Your task to perform on an android device: Show me recent news Image 0: 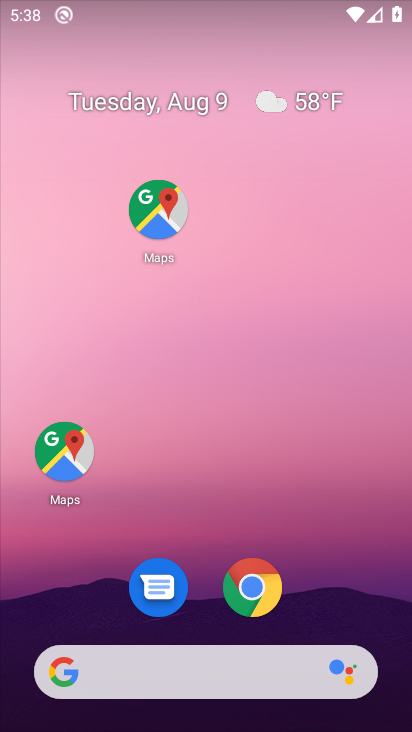
Step 0: press back button
Your task to perform on an android device: Show me recent news Image 1: 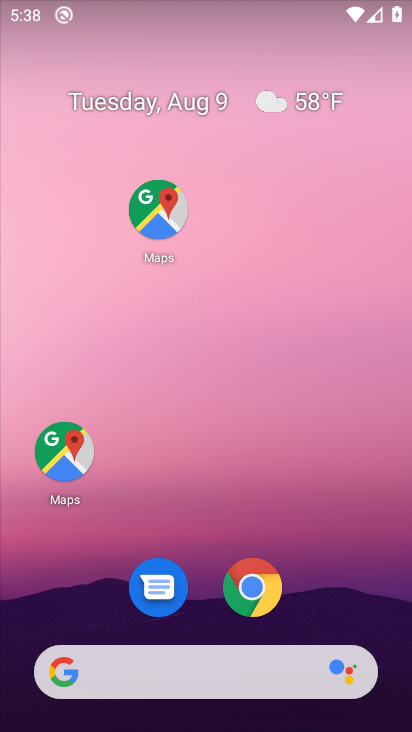
Step 1: press back button
Your task to perform on an android device: Show me recent news Image 2: 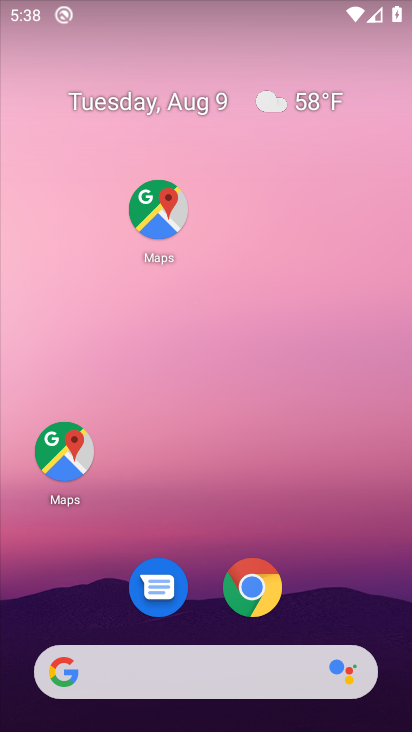
Step 2: drag from (267, 645) to (160, 0)
Your task to perform on an android device: Show me recent news Image 3: 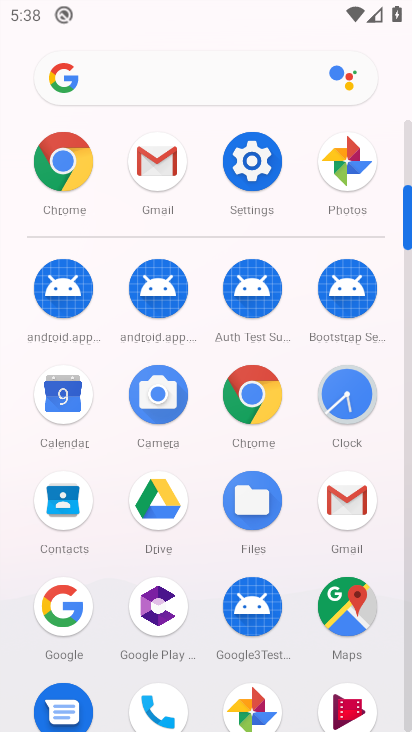
Step 3: click (255, 383)
Your task to perform on an android device: Show me recent news Image 4: 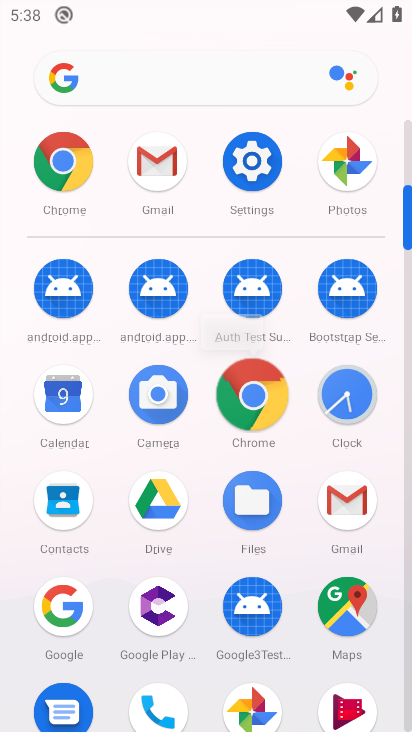
Step 4: drag from (266, 372) to (258, 416)
Your task to perform on an android device: Show me recent news Image 5: 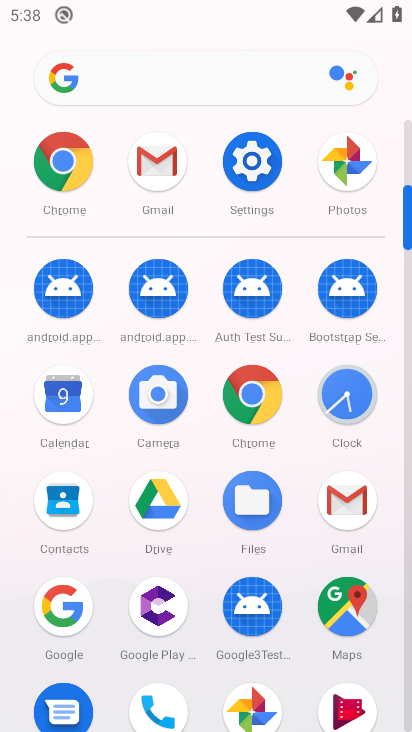
Step 5: click (260, 407)
Your task to perform on an android device: Show me recent news Image 6: 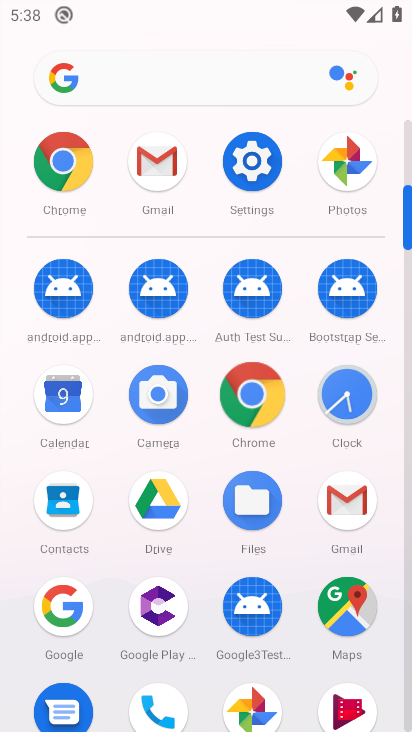
Step 6: click (256, 407)
Your task to perform on an android device: Show me recent news Image 7: 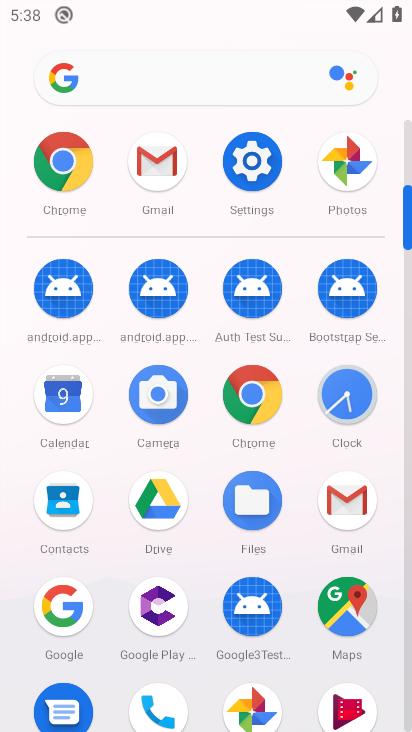
Step 7: click (267, 402)
Your task to perform on an android device: Show me recent news Image 8: 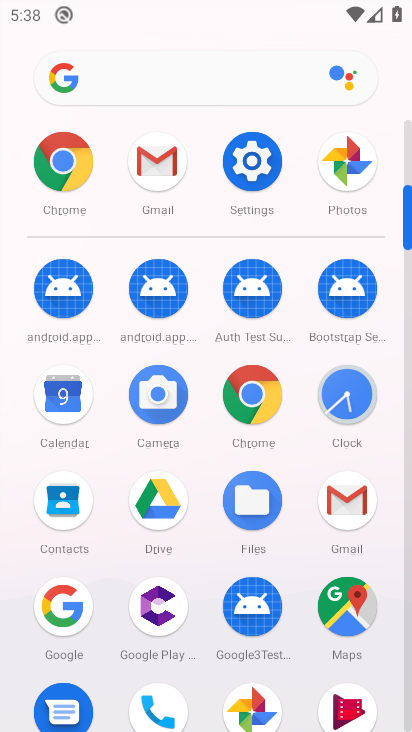
Step 8: click (266, 403)
Your task to perform on an android device: Show me recent news Image 9: 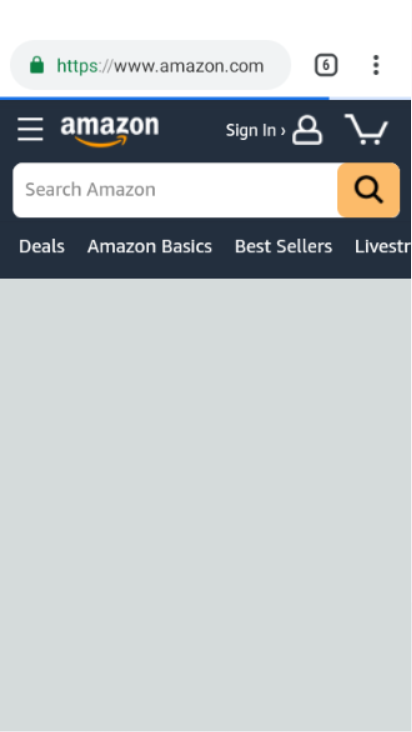
Step 9: click (265, 405)
Your task to perform on an android device: Show me recent news Image 10: 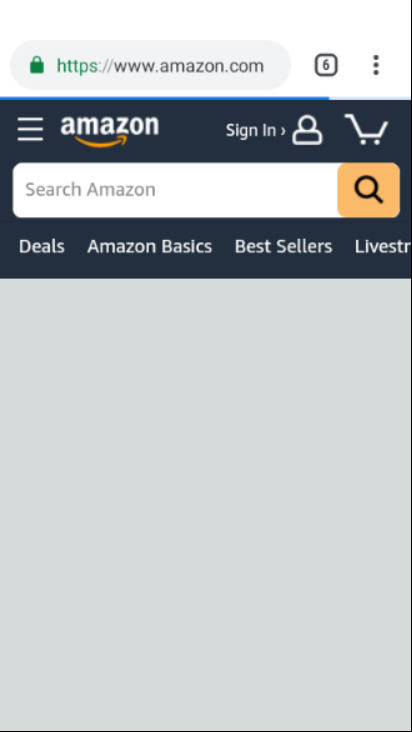
Step 10: click (256, 395)
Your task to perform on an android device: Show me recent news Image 11: 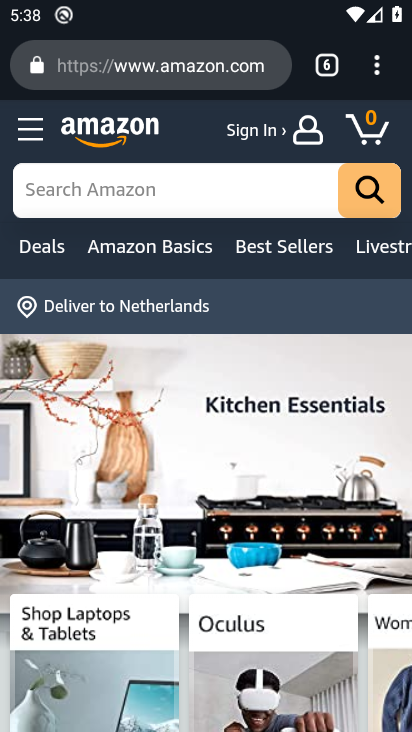
Step 11: drag from (379, 61) to (116, 117)
Your task to perform on an android device: Show me recent news Image 12: 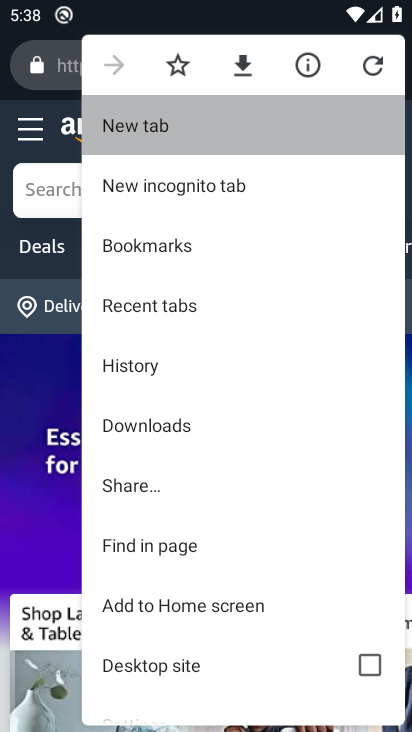
Step 12: click (116, 117)
Your task to perform on an android device: Show me recent news Image 13: 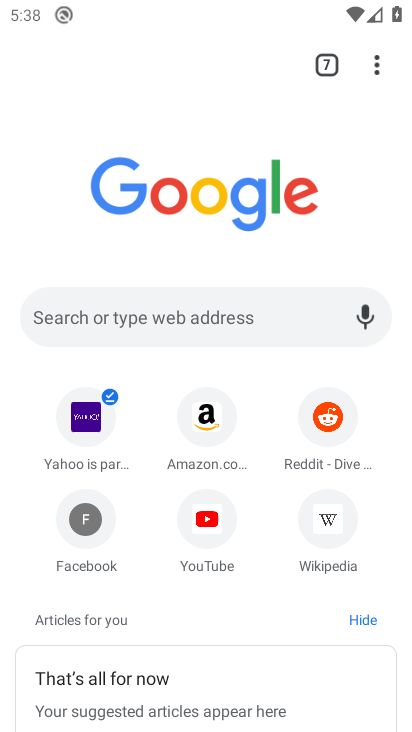
Step 13: drag from (240, 636) to (375, 452)
Your task to perform on an android device: Show me recent news Image 14: 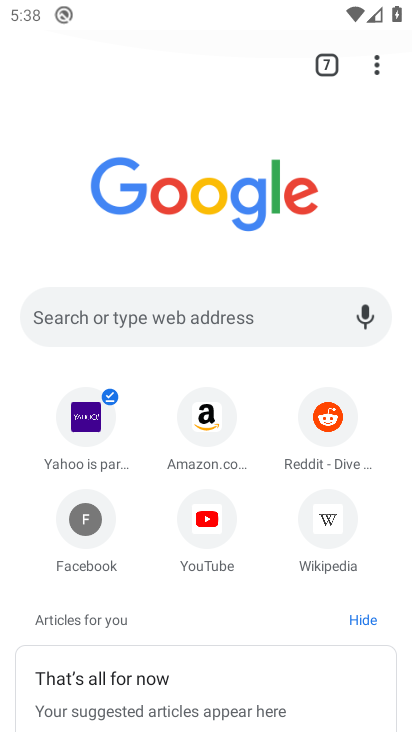
Step 14: click (220, 620)
Your task to perform on an android device: Show me recent news Image 15: 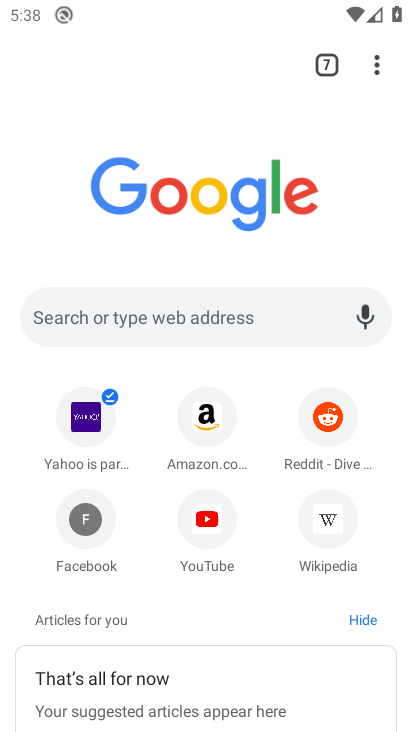
Step 15: click (220, 620)
Your task to perform on an android device: Show me recent news Image 16: 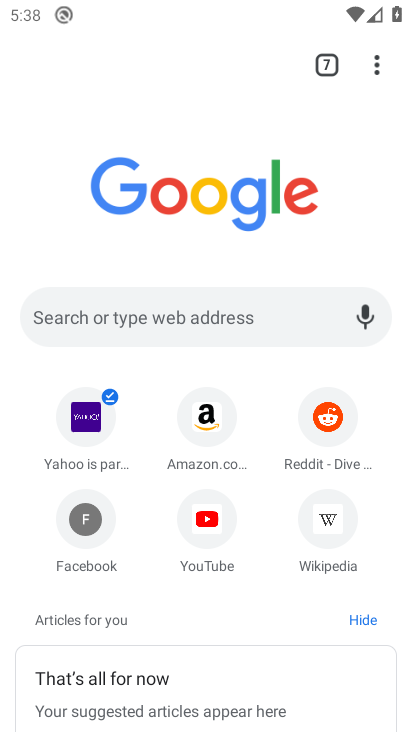
Step 16: drag from (206, 573) to (206, 131)
Your task to perform on an android device: Show me recent news Image 17: 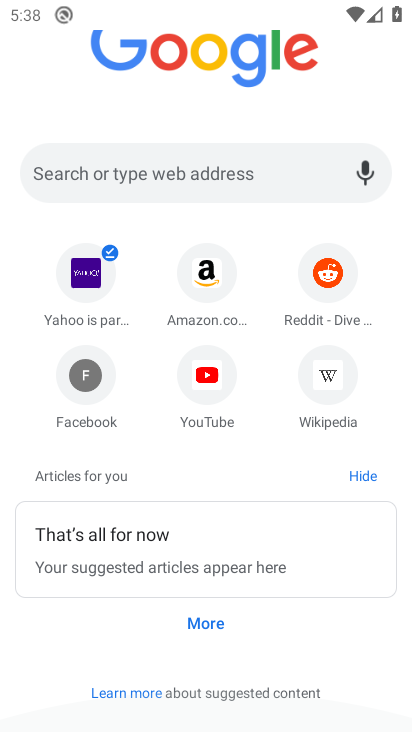
Step 17: drag from (224, 519) to (247, 119)
Your task to perform on an android device: Show me recent news Image 18: 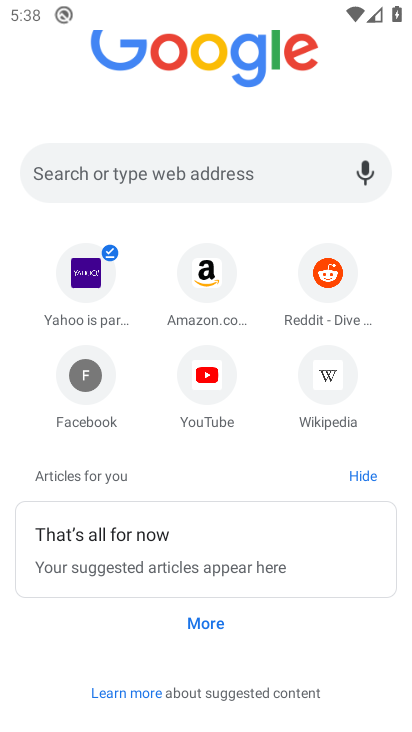
Step 18: click (196, 612)
Your task to perform on an android device: Show me recent news Image 19: 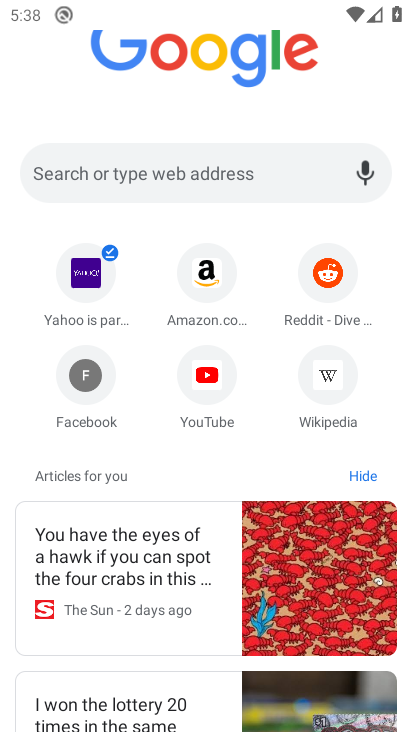
Step 19: task complete